Your task to perform on an android device: Go to notification settings Image 0: 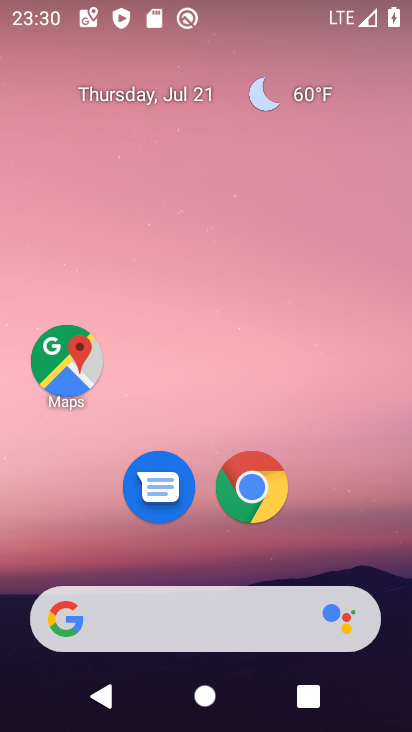
Step 0: drag from (170, 474) to (259, 13)
Your task to perform on an android device: Go to notification settings Image 1: 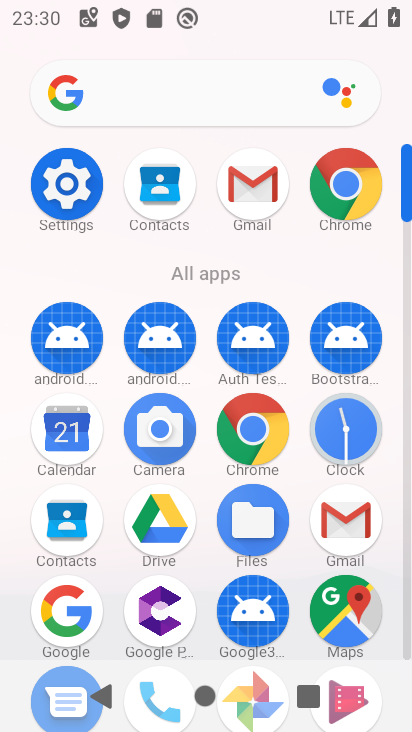
Step 1: click (73, 185)
Your task to perform on an android device: Go to notification settings Image 2: 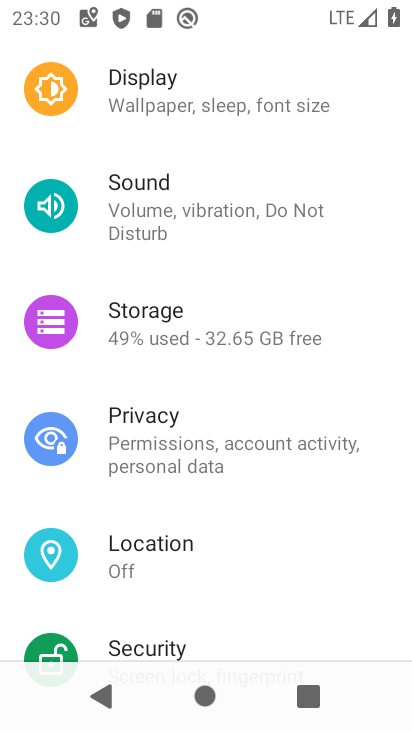
Step 2: drag from (190, 228) to (171, 655)
Your task to perform on an android device: Go to notification settings Image 3: 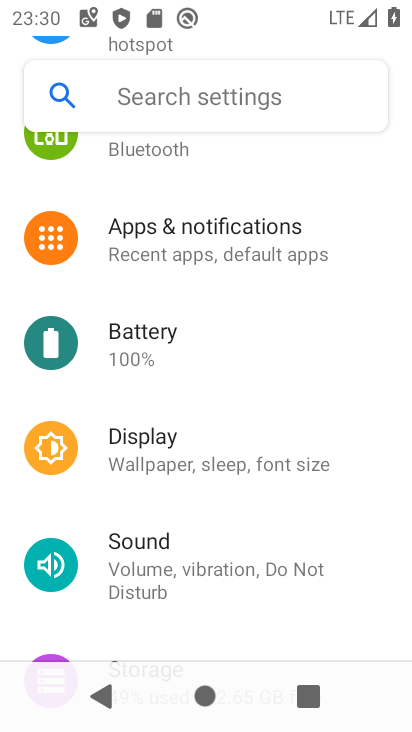
Step 3: click (205, 236)
Your task to perform on an android device: Go to notification settings Image 4: 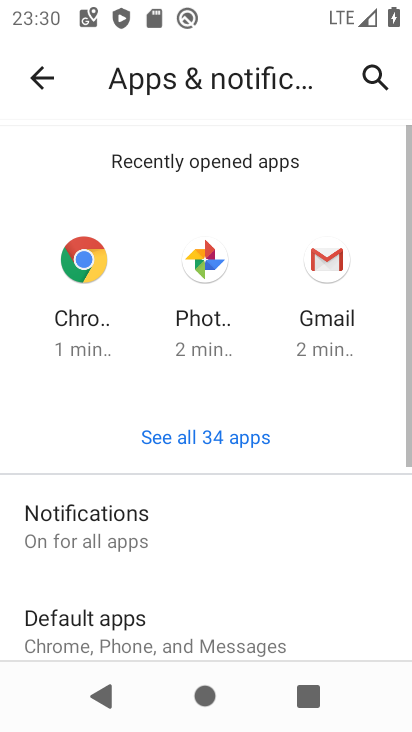
Step 4: task complete